Your task to perform on an android device: see creations saved in the google photos Image 0: 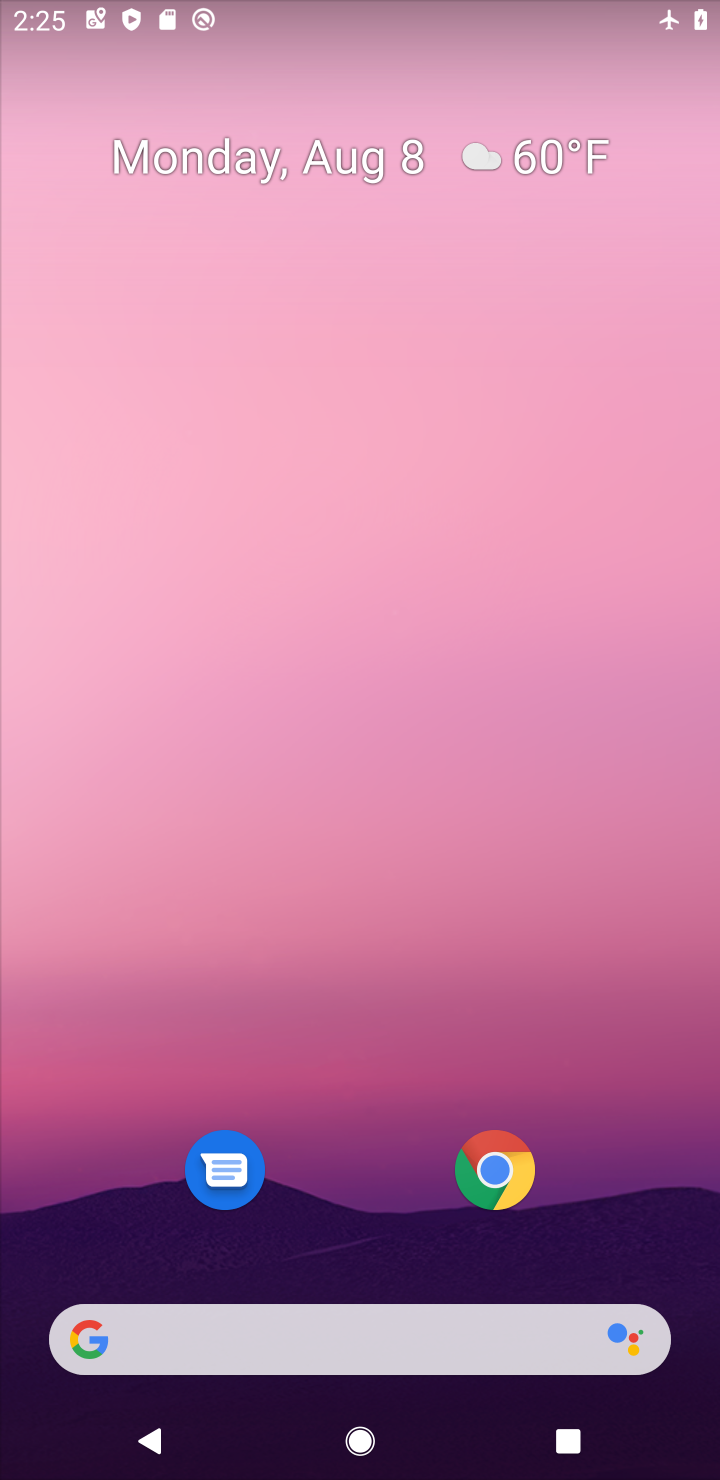
Step 0: drag from (358, 559) to (358, 285)
Your task to perform on an android device: see creations saved in the google photos Image 1: 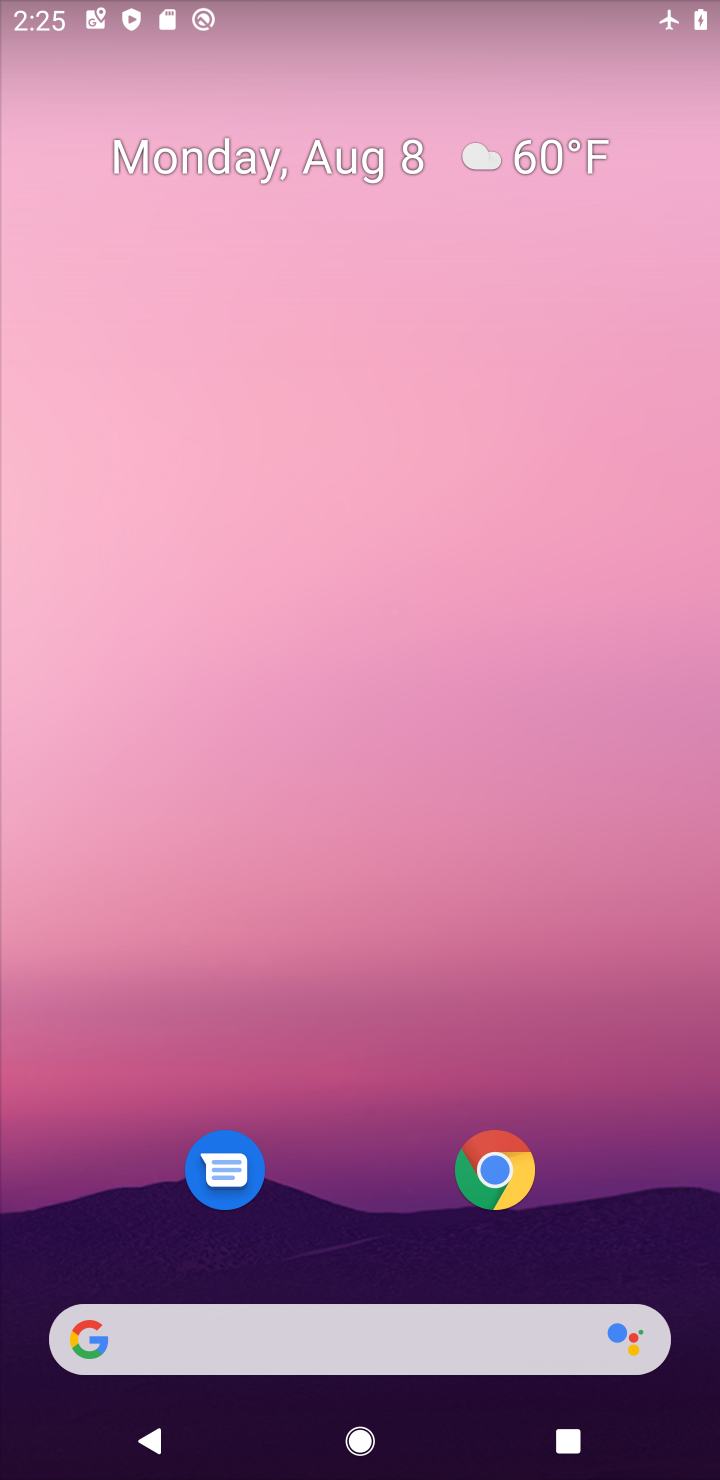
Step 1: drag from (343, 1235) to (359, 402)
Your task to perform on an android device: see creations saved in the google photos Image 2: 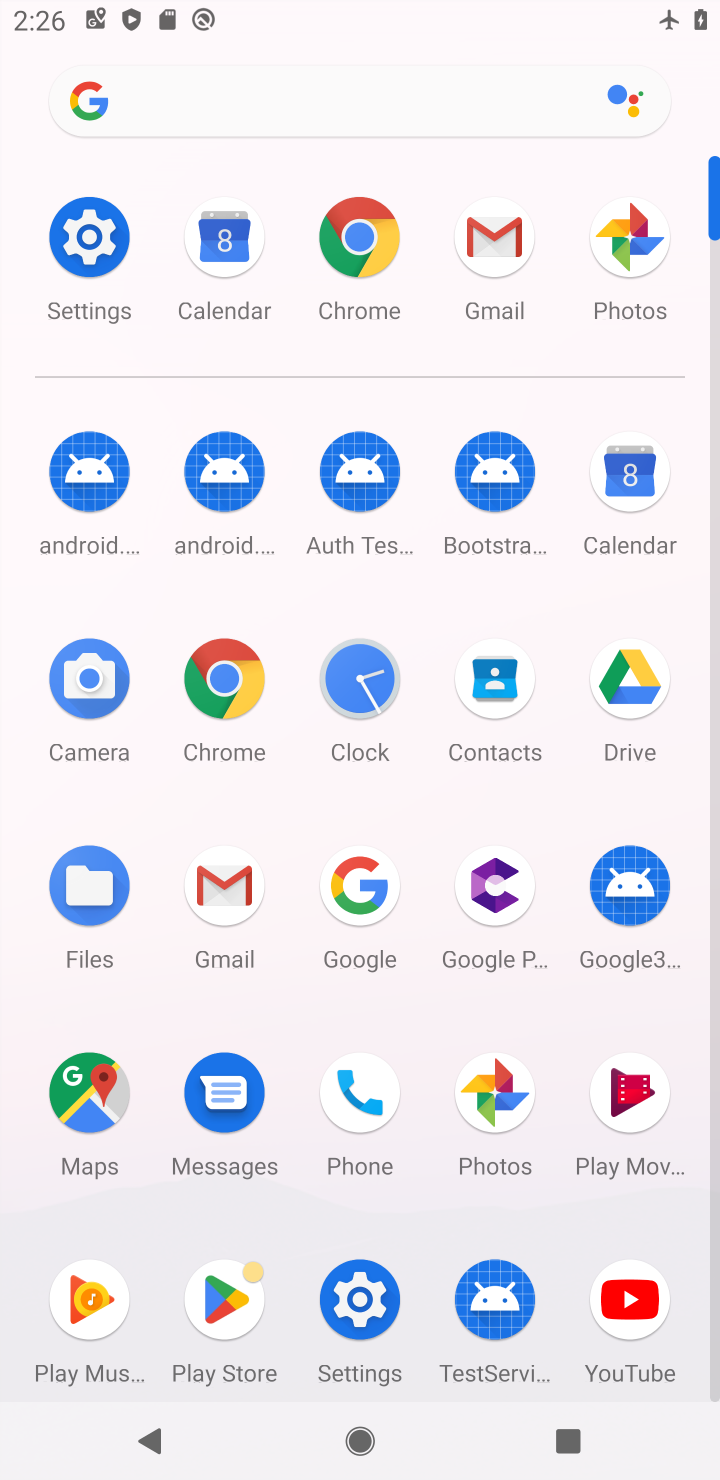
Step 2: click (610, 266)
Your task to perform on an android device: see creations saved in the google photos Image 3: 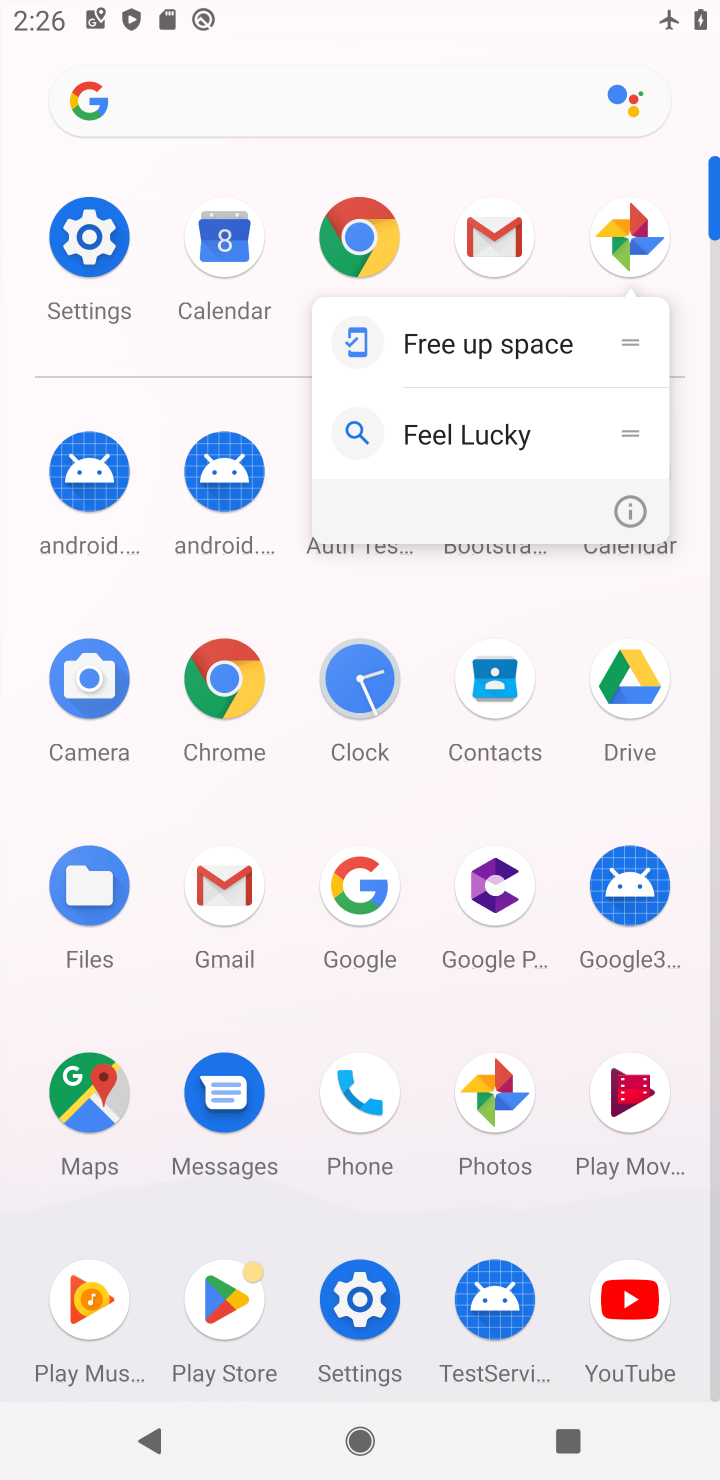
Step 3: click (610, 266)
Your task to perform on an android device: see creations saved in the google photos Image 4: 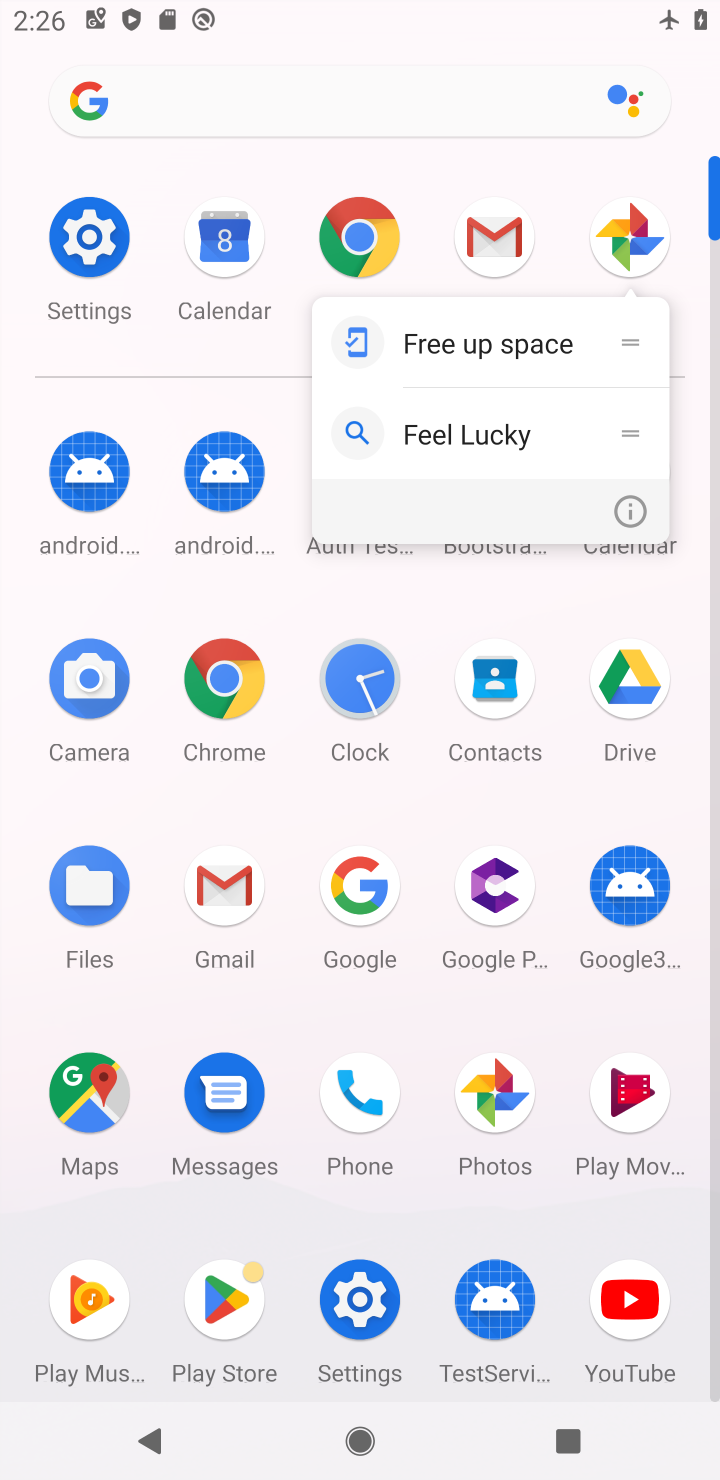
Step 4: click (631, 254)
Your task to perform on an android device: see creations saved in the google photos Image 5: 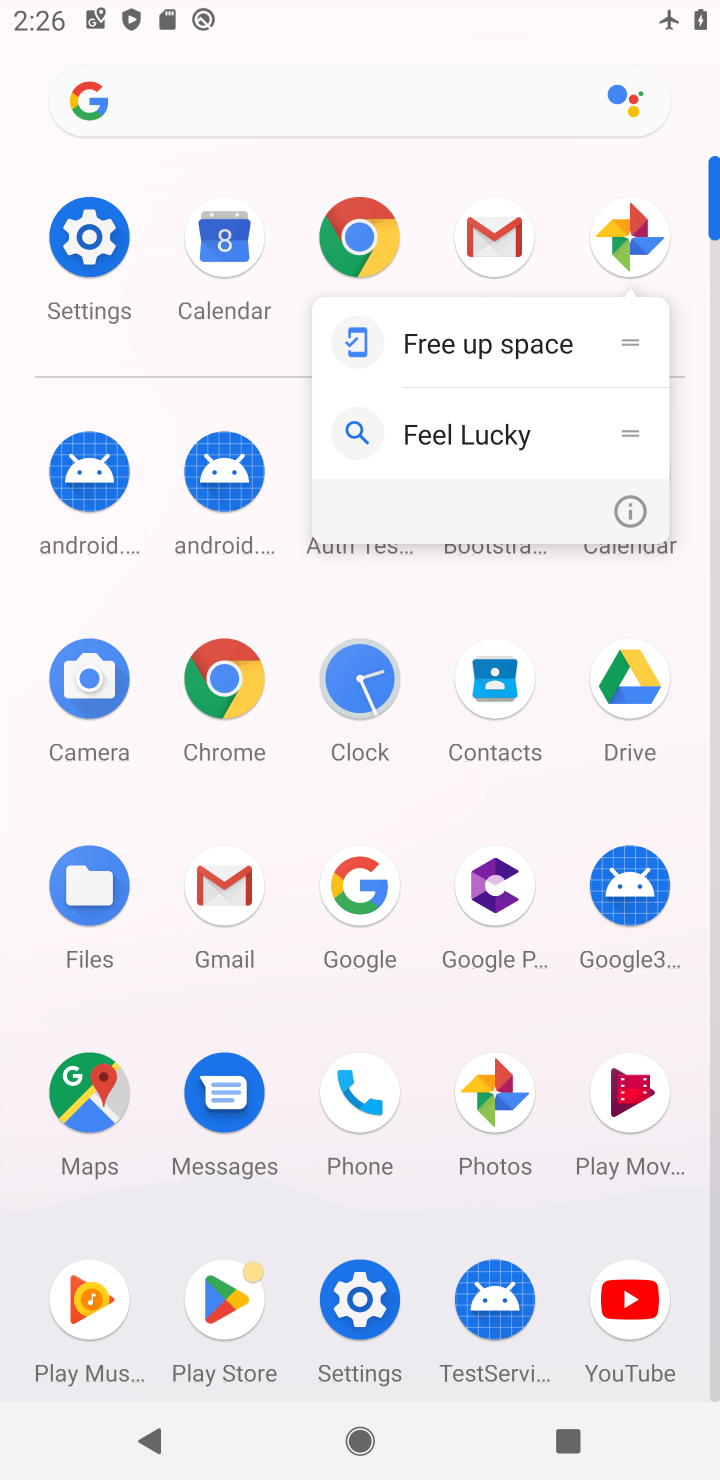
Step 5: click (631, 254)
Your task to perform on an android device: see creations saved in the google photos Image 6: 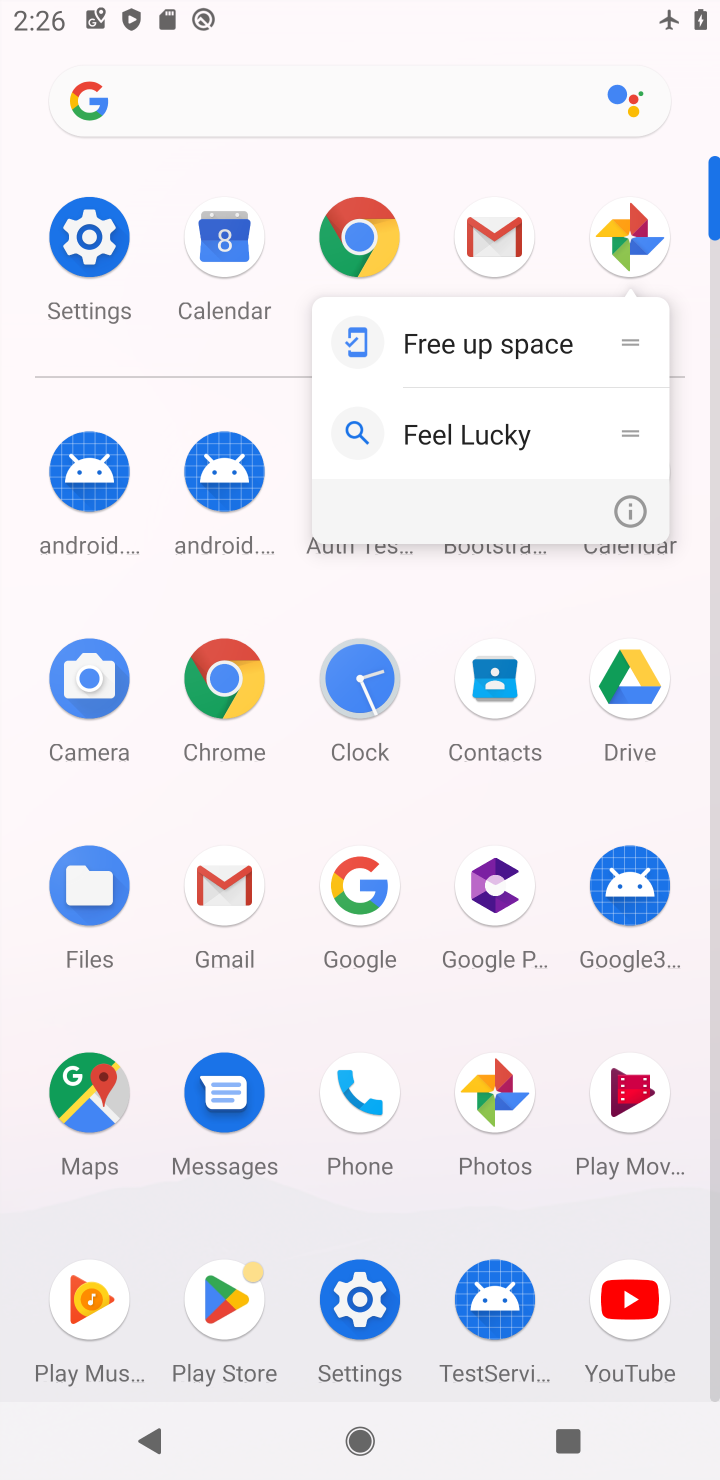
Step 6: click (631, 254)
Your task to perform on an android device: see creations saved in the google photos Image 7: 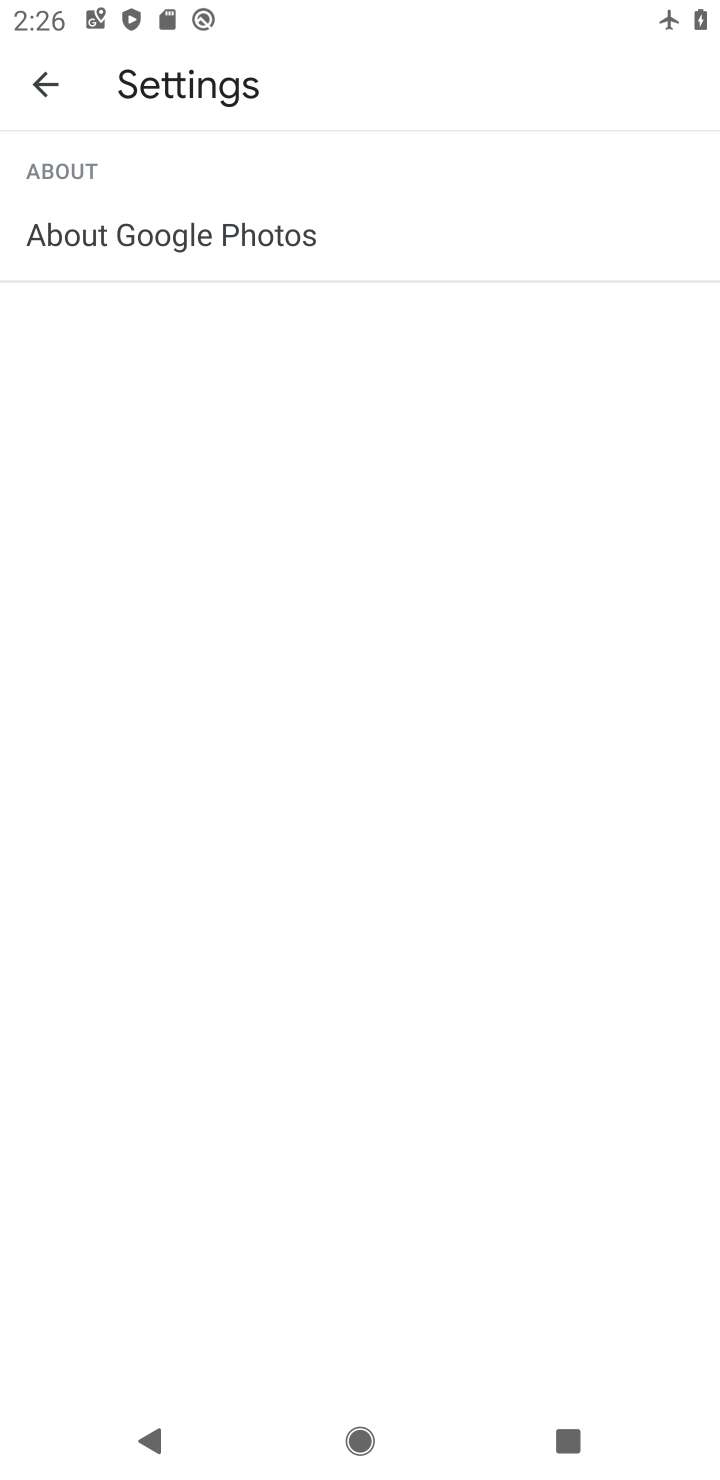
Step 7: click (631, 254)
Your task to perform on an android device: see creations saved in the google photos Image 8: 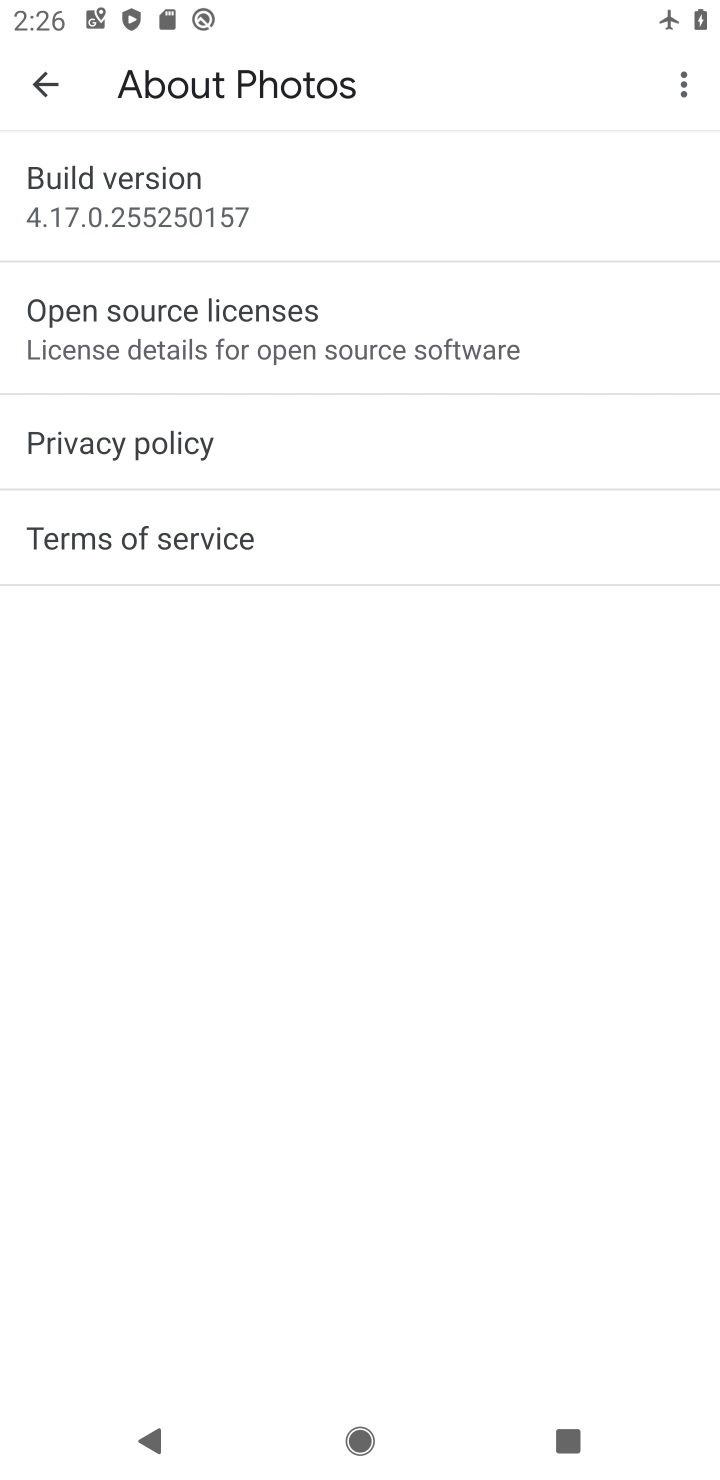
Step 8: click (37, 78)
Your task to perform on an android device: see creations saved in the google photos Image 9: 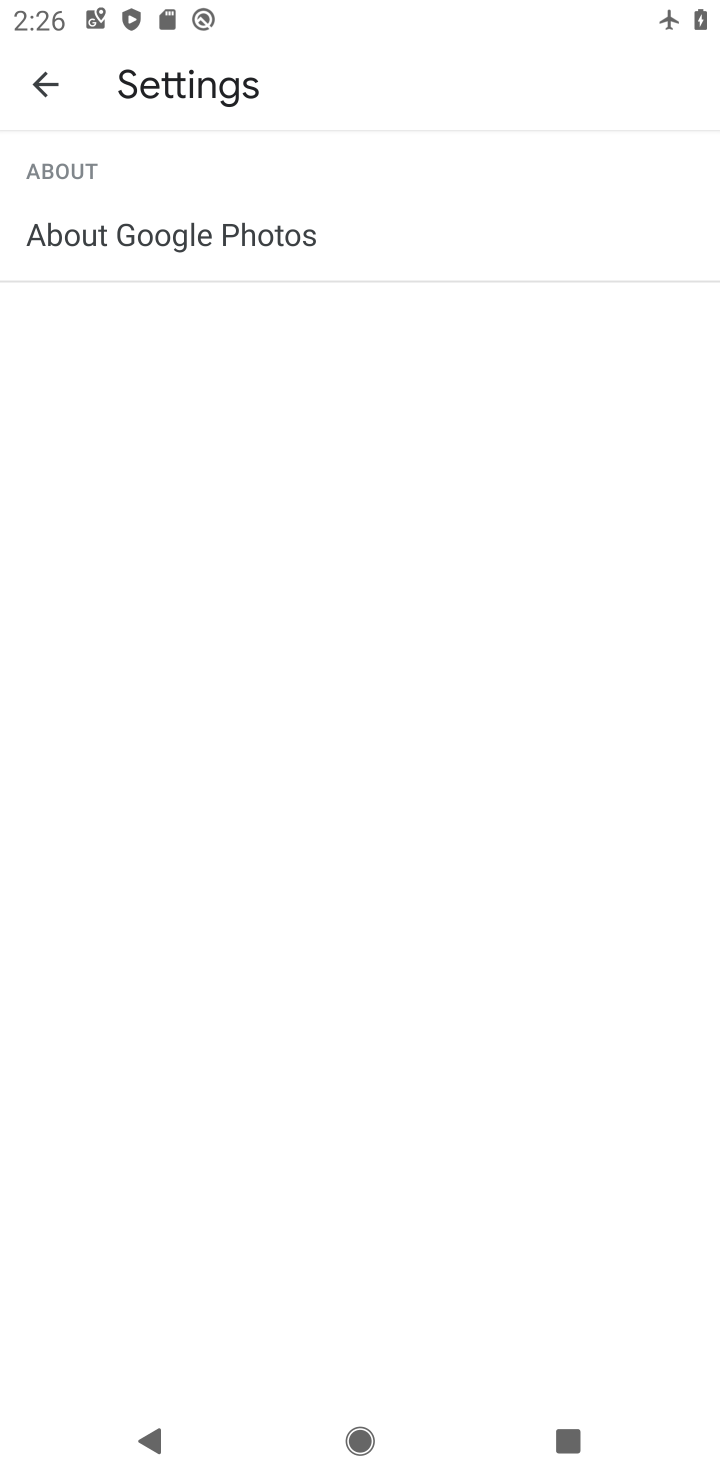
Step 9: click (37, 78)
Your task to perform on an android device: see creations saved in the google photos Image 10: 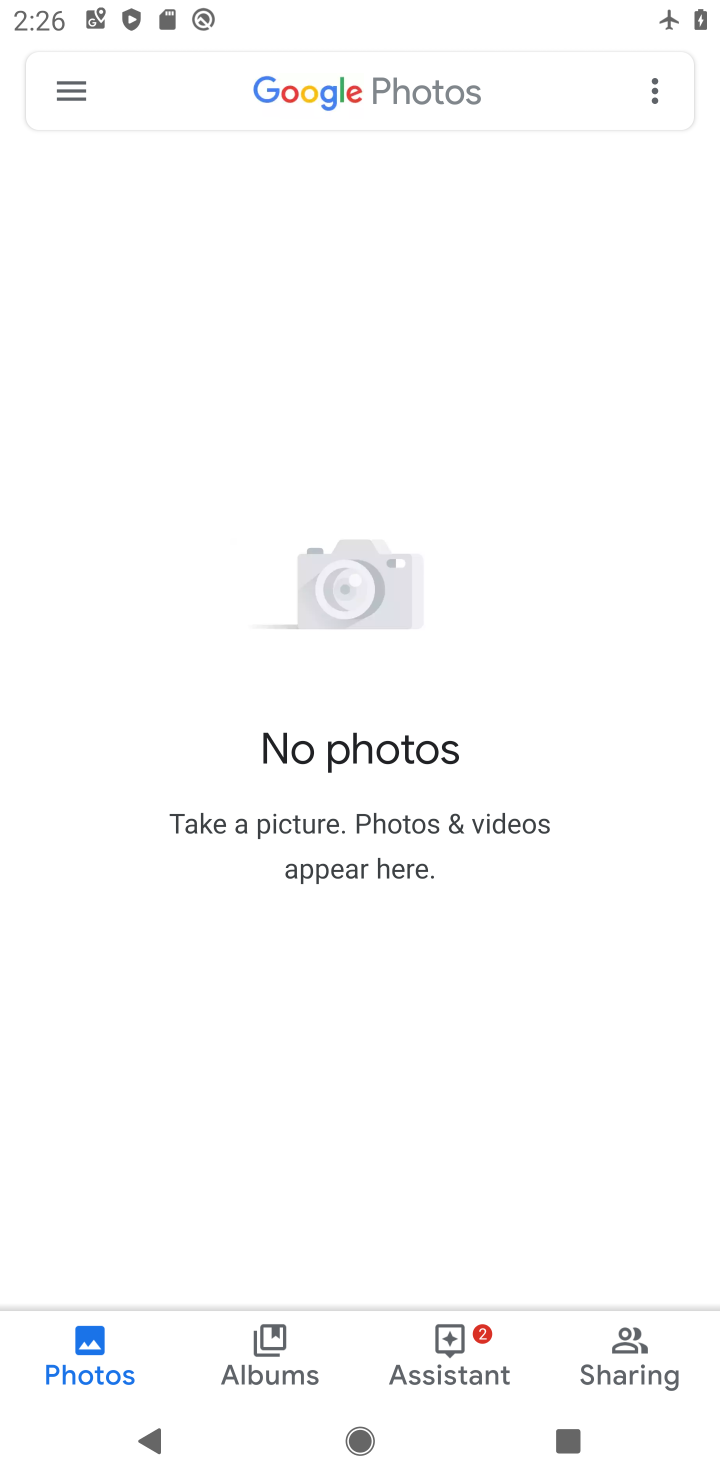
Step 10: click (238, 93)
Your task to perform on an android device: see creations saved in the google photos Image 11: 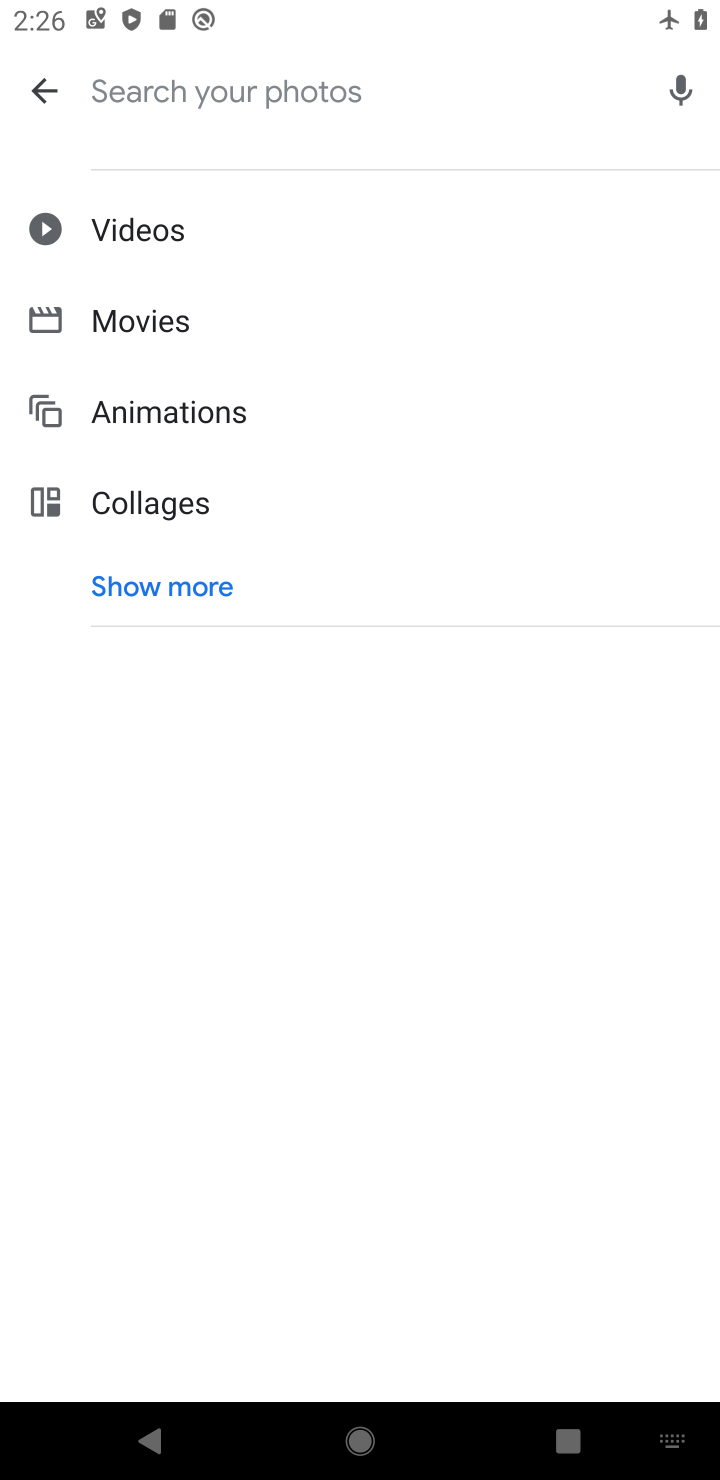
Step 11: click (182, 594)
Your task to perform on an android device: see creations saved in the google photos Image 12: 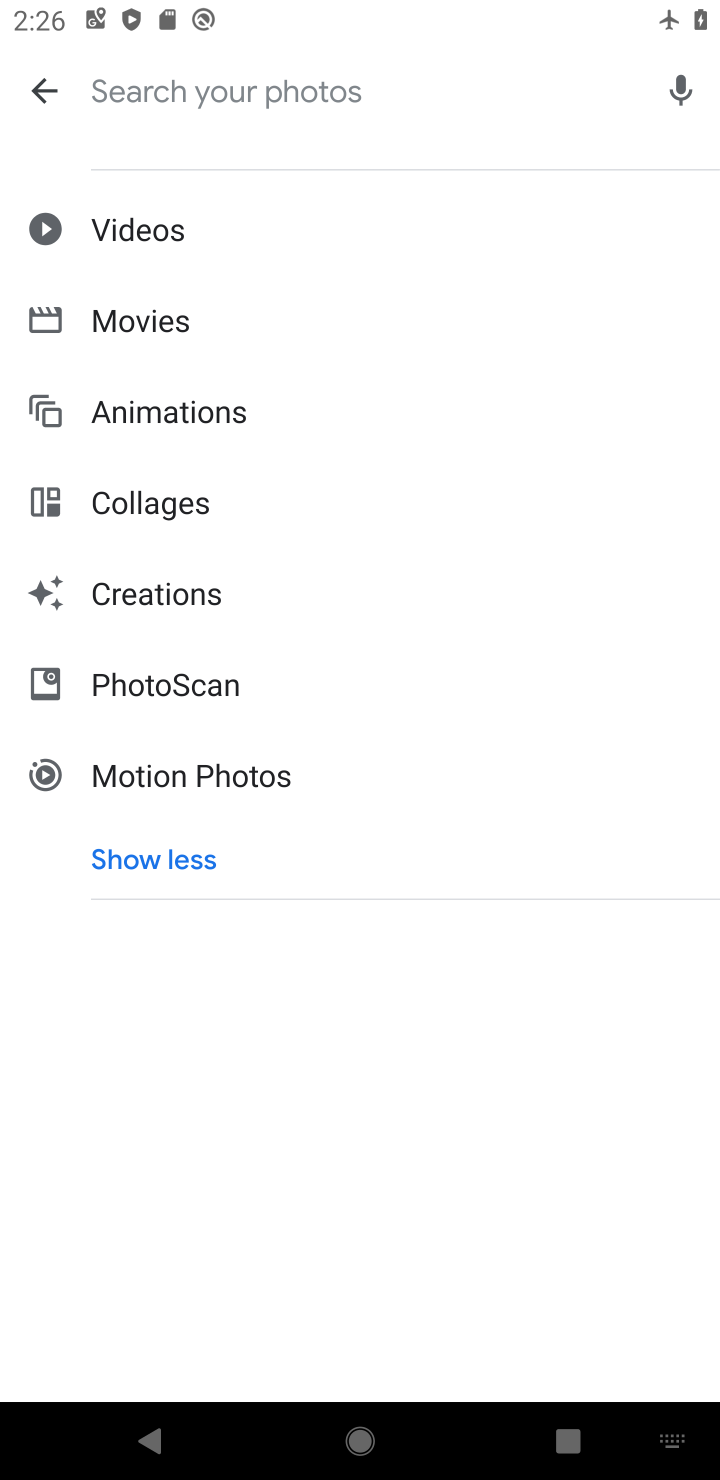
Step 12: click (208, 579)
Your task to perform on an android device: see creations saved in the google photos Image 13: 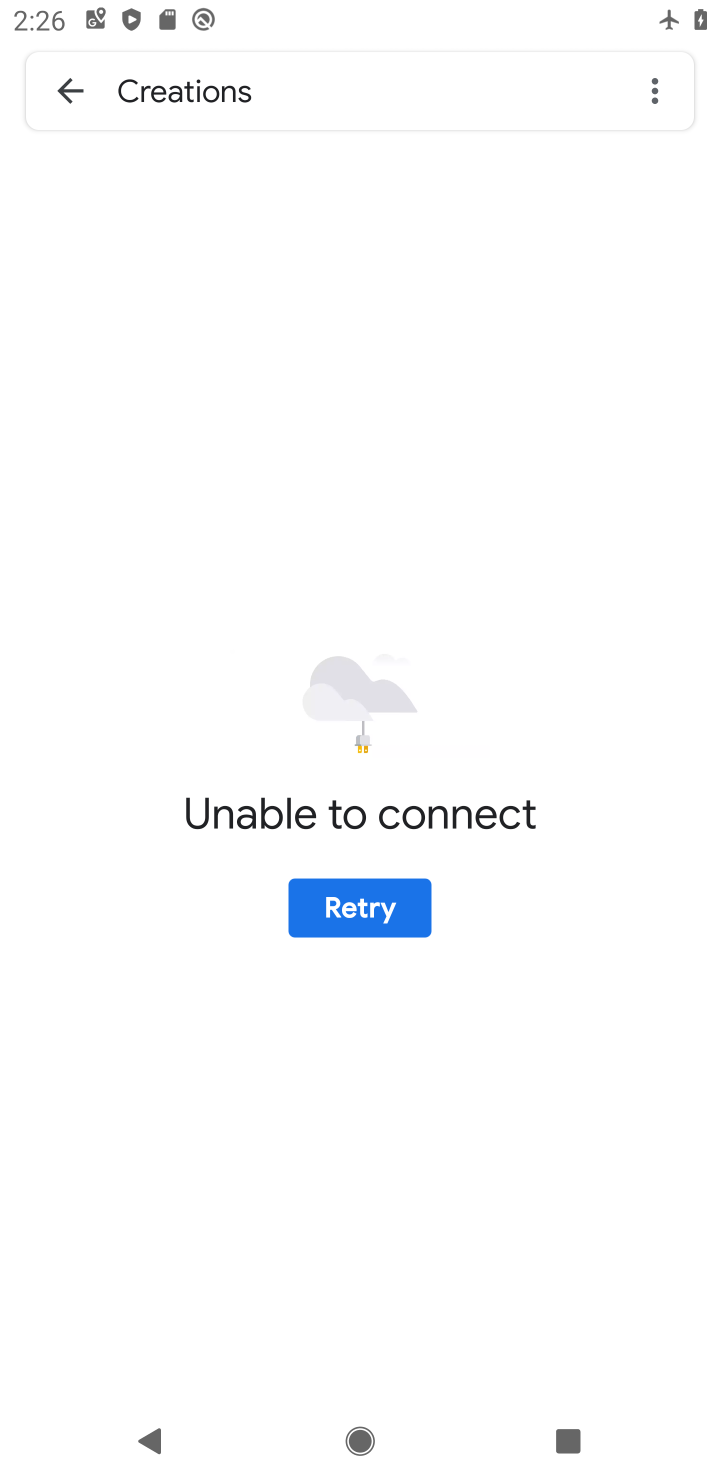
Step 13: task complete